Your task to perform on an android device: Open sound settings Image 0: 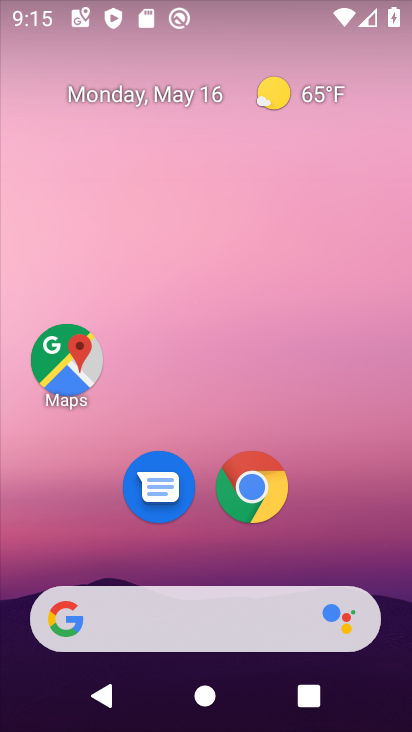
Step 0: drag from (390, 544) to (370, 198)
Your task to perform on an android device: Open sound settings Image 1: 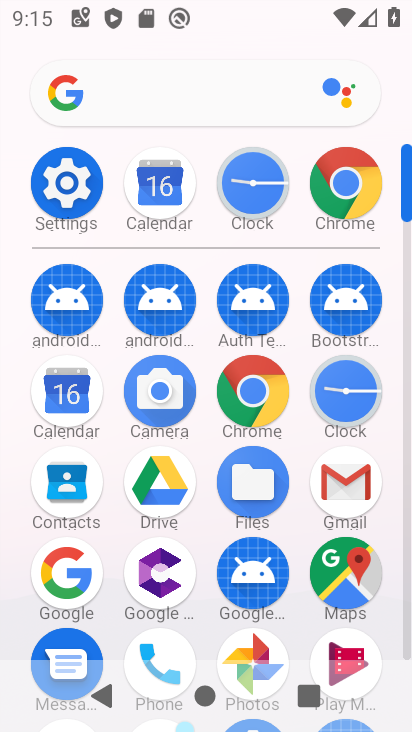
Step 1: click (84, 195)
Your task to perform on an android device: Open sound settings Image 2: 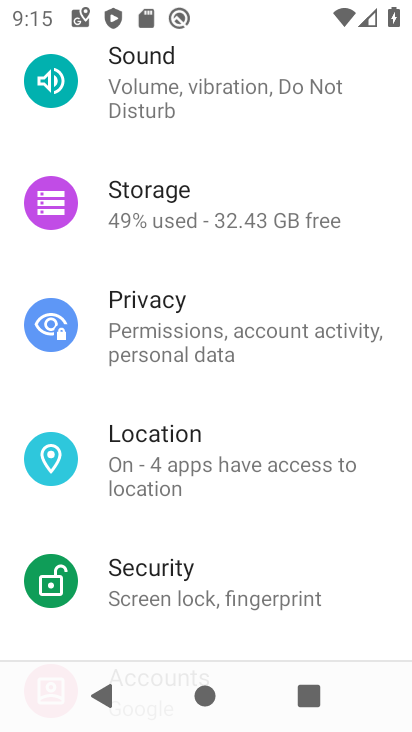
Step 2: drag from (377, 580) to (381, 419)
Your task to perform on an android device: Open sound settings Image 3: 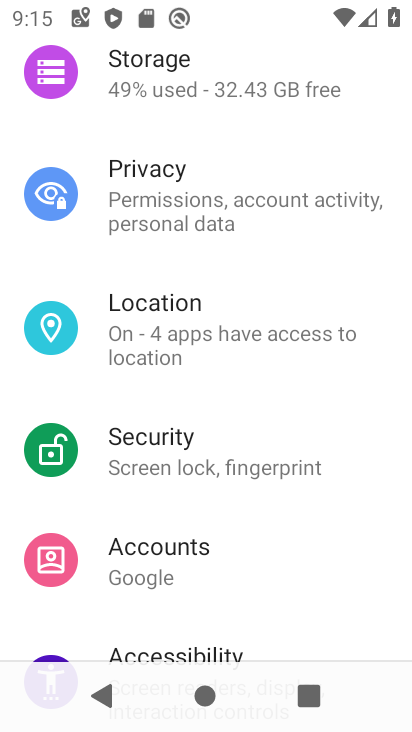
Step 3: drag from (360, 595) to (364, 433)
Your task to perform on an android device: Open sound settings Image 4: 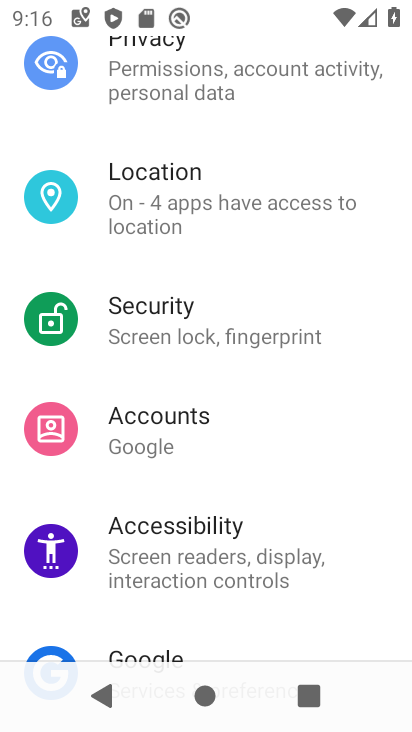
Step 4: drag from (364, 631) to (372, 467)
Your task to perform on an android device: Open sound settings Image 5: 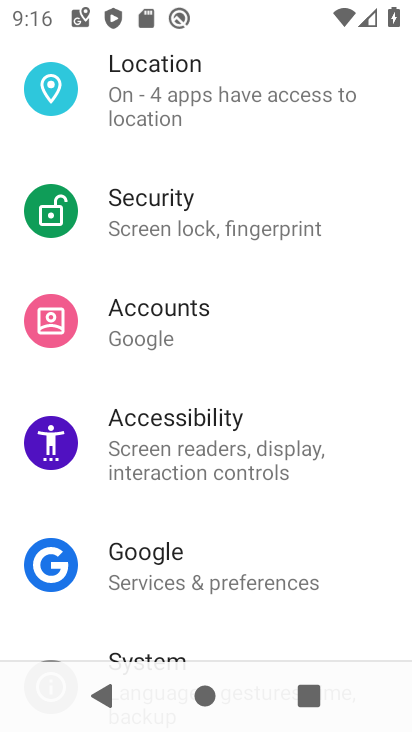
Step 5: drag from (349, 628) to (336, 450)
Your task to perform on an android device: Open sound settings Image 6: 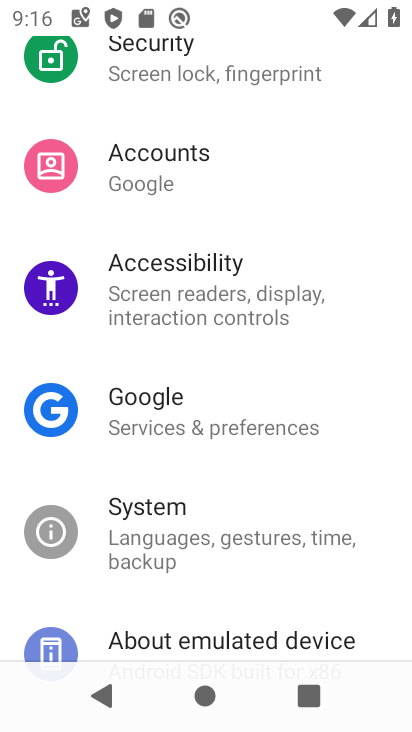
Step 6: drag from (359, 606) to (359, 435)
Your task to perform on an android device: Open sound settings Image 7: 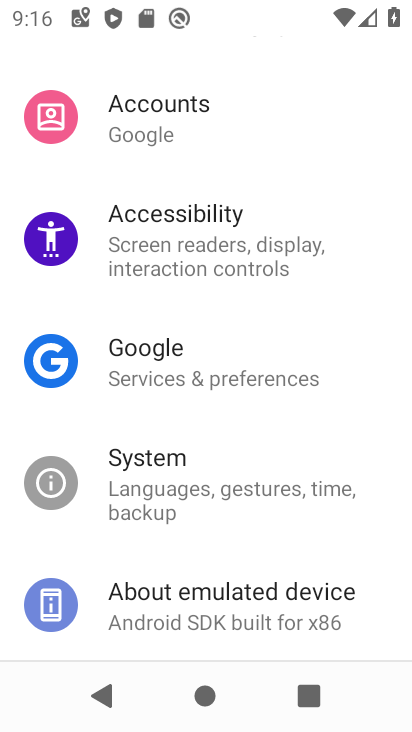
Step 7: drag from (346, 304) to (360, 416)
Your task to perform on an android device: Open sound settings Image 8: 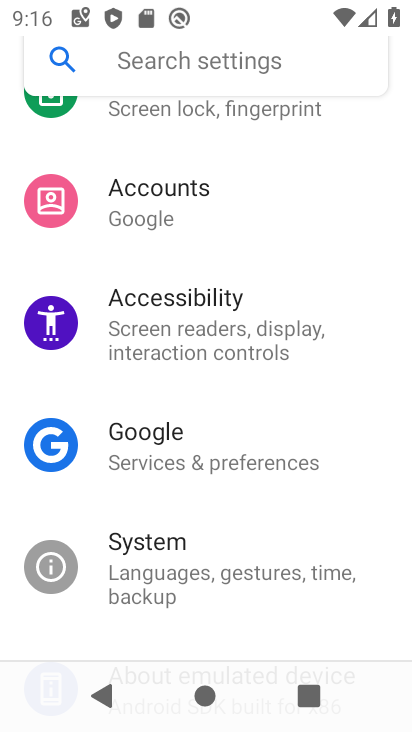
Step 8: drag from (379, 255) to (360, 404)
Your task to perform on an android device: Open sound settings Image 9: 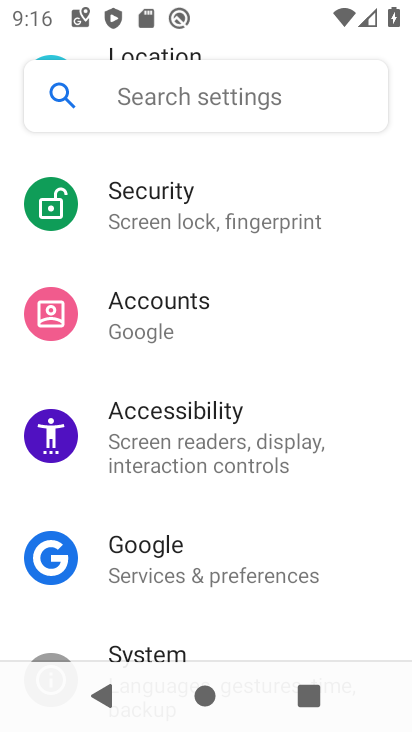
Step 9: drag from (356, 224) to (344, 358)
Your task to perform on an android device: Open sound settings Image 10: 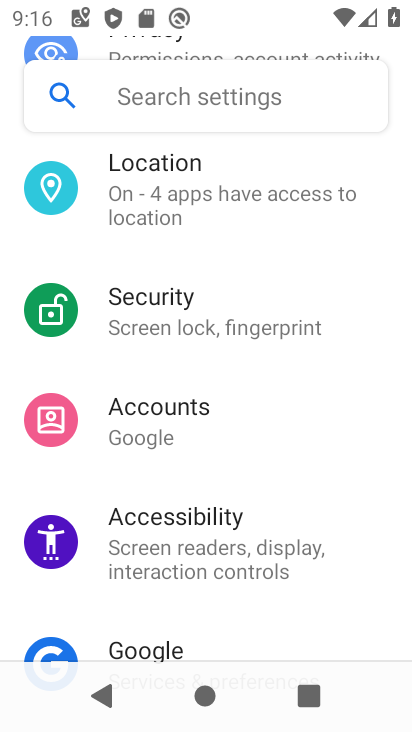
Step 10: drag from (341, 241) to (347, 359)
Your task to perform on an android device: Open sound settings Image 11: 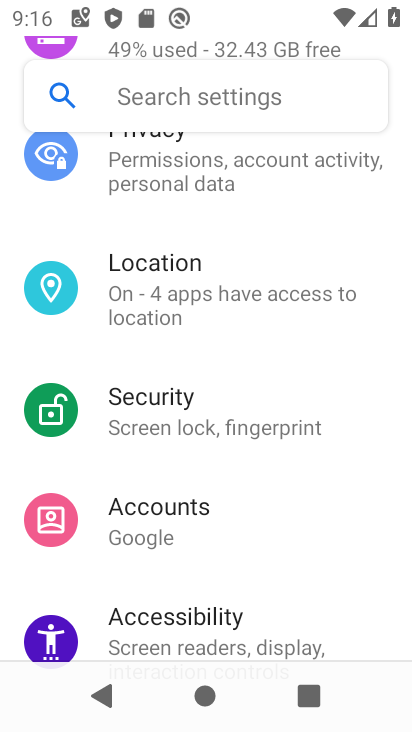
Step 11: drag from (327, 235) to (323, 370)
Your task to perform on an android device: Open sound settings Image 12: 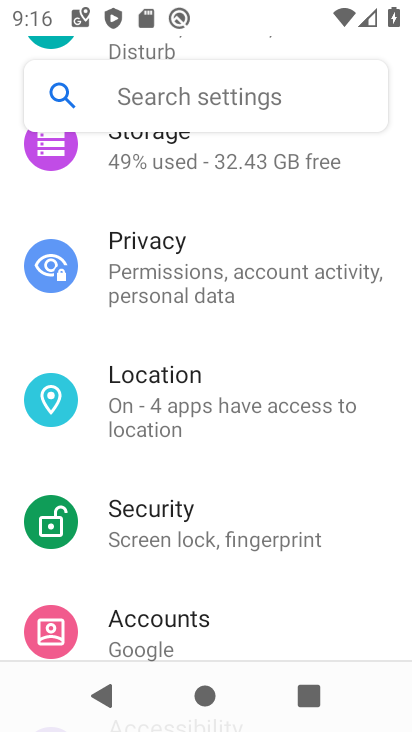
Step 12: drag from (306, 211) to (313, 330)
Your task to perform on an android device: Open sound settings Image 13: 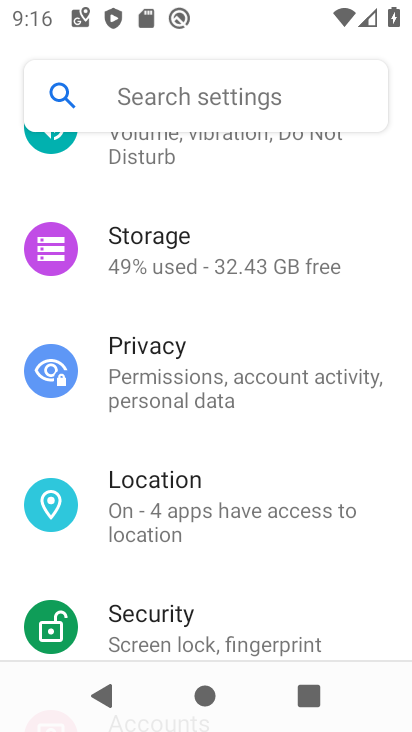
Step 13: drag from (322, 211) to (311, 337)
Your task to perform on an android device: Open sound settings Image 14: 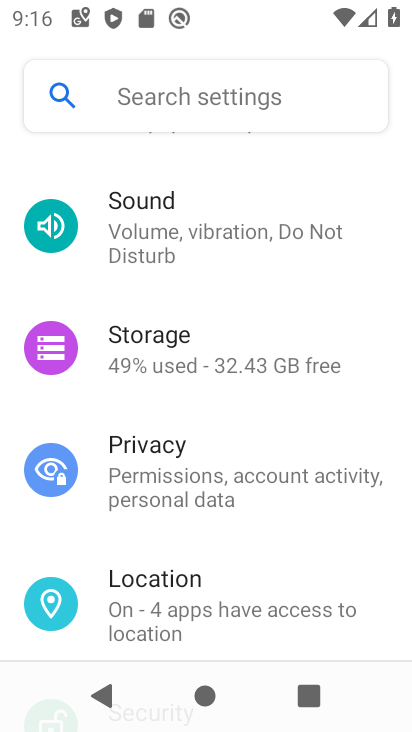
Step 14: click (274, 239)
Your task to perform on an android device: Open sound settings Image 15: 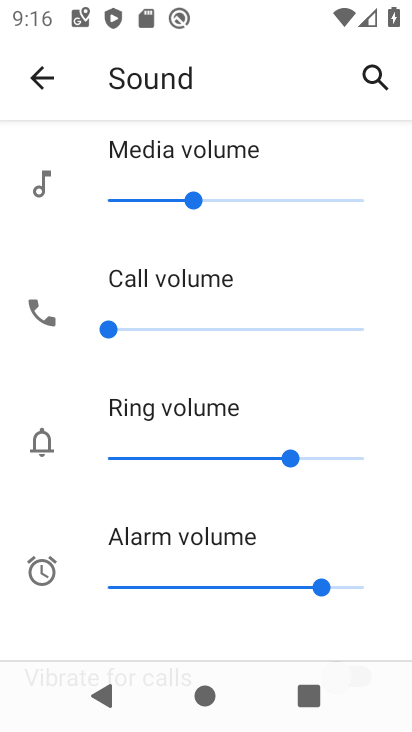
Step 15: task complete